Your task to perform on an android device: Search for Mexican restaurants on Maps Image 0: 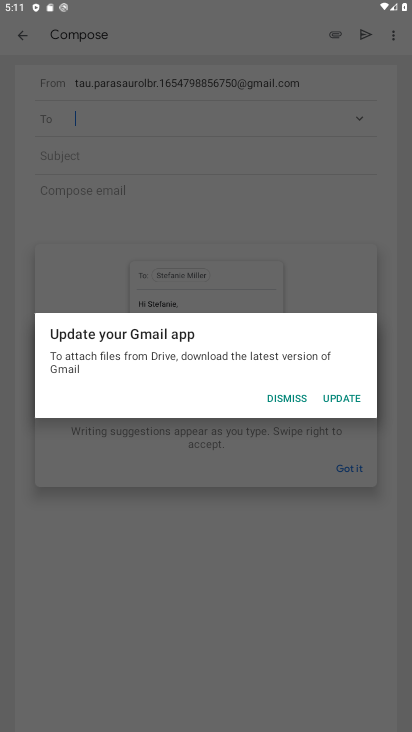
Step 0: click (291, 398)
Your task to perform on an android device: Search for Mexican restaurants on Maps Image 1: 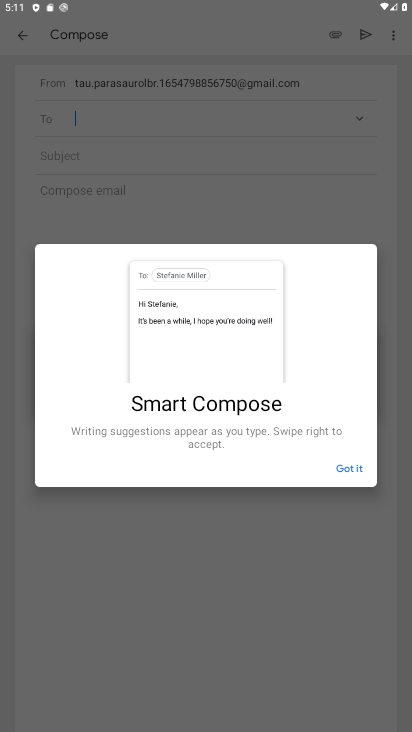
Step 1: click (352, 464)
Your task to perform on an android device: Search for Mexican restaurants on Maps Image 2: 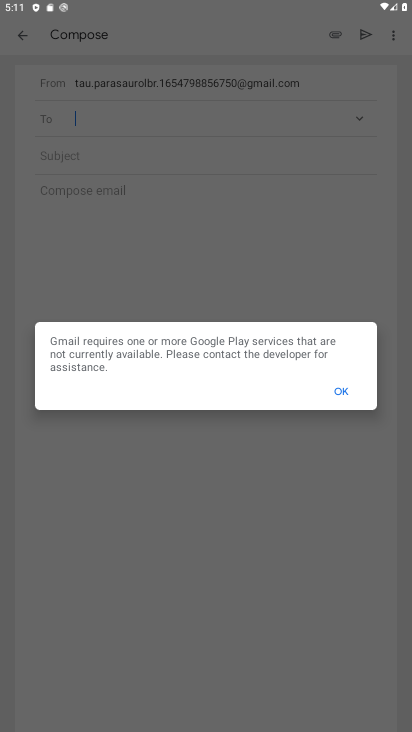
Step 2: click (342, 397)
Your task to perform on an android device: Search for Mexican restaurants on Maps Image 3: 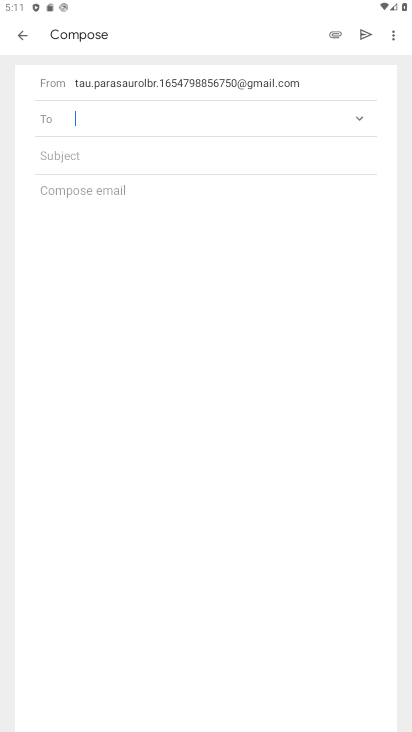
Step 3: press home button
Your task to perform on an android device: Search for Mexican restaurants on Maps Image 4: 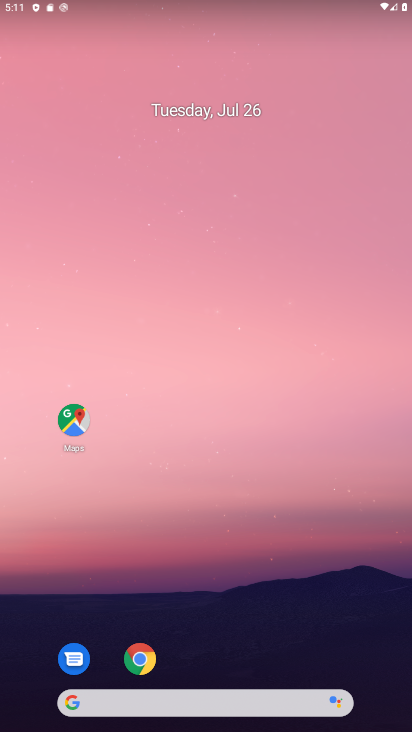
Step 4: click (66, 422)
Your task to perform on an android device: Search for Mexican restaurants on Maps Image 5: 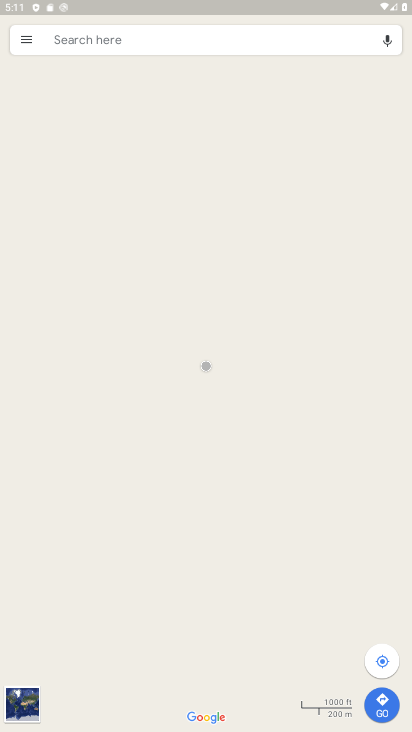
Step 5: click (152, 45)
Your task to perform on an android device: Search for Mexican restaurants on Maps Image 6: 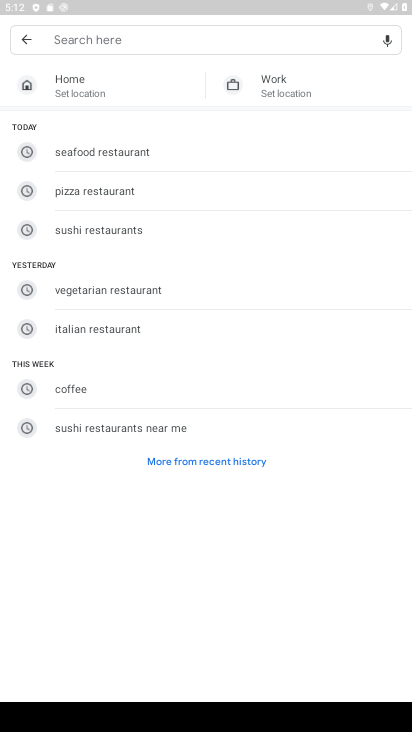
Step 6: type "Mexican restaurants "
Your task to perform on an android device: Search for Mexican restaurants on Maps Image 7: 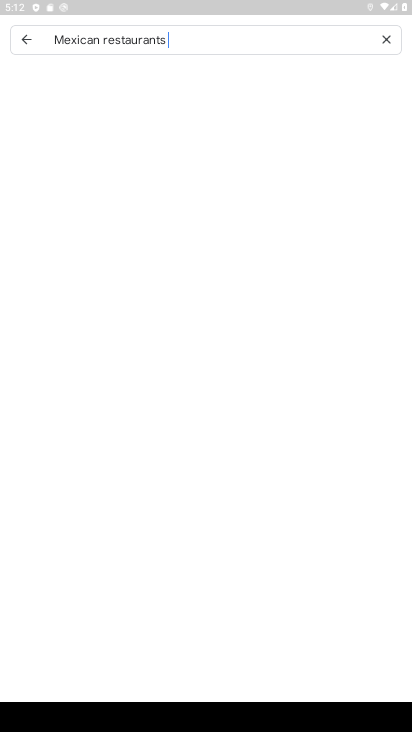
Step 7: press enter
Your task to perform on an android device: Search for Mexican restaurants on Maps Image 8: 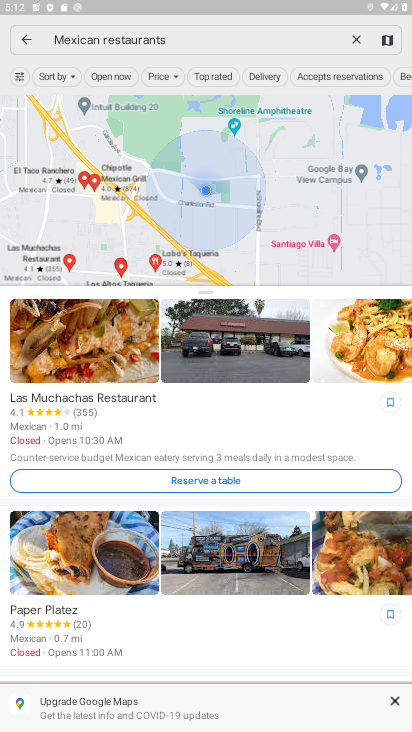
Step 8: task complete